Your task to perform on an android device: open app "Spotify" (install if not already installed), go to login, and select forgot password Image 0: 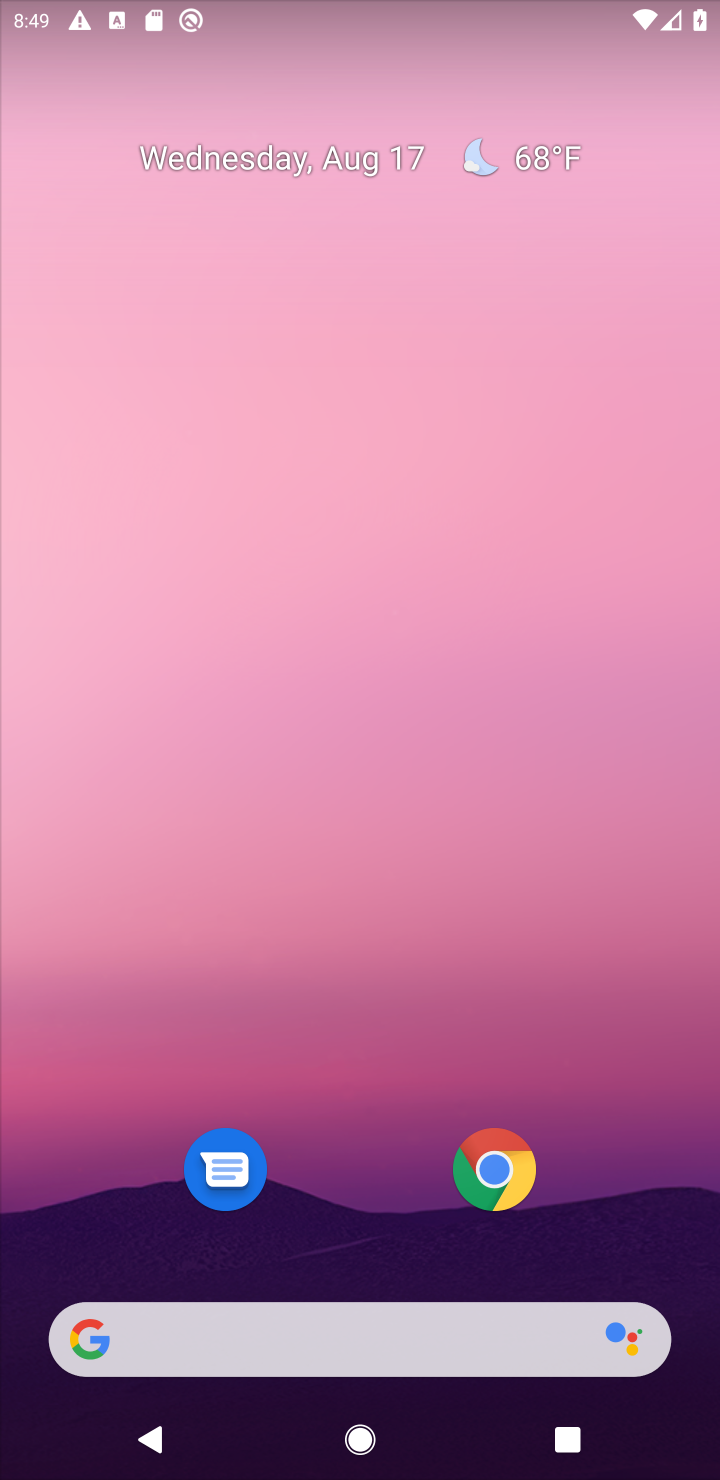
Step 0: drag from (315, 1273) to (312, 33)
Your task to perform on an android device: open app "Spotify" (install if not already installed), go to login, and select forgot password Image 1: 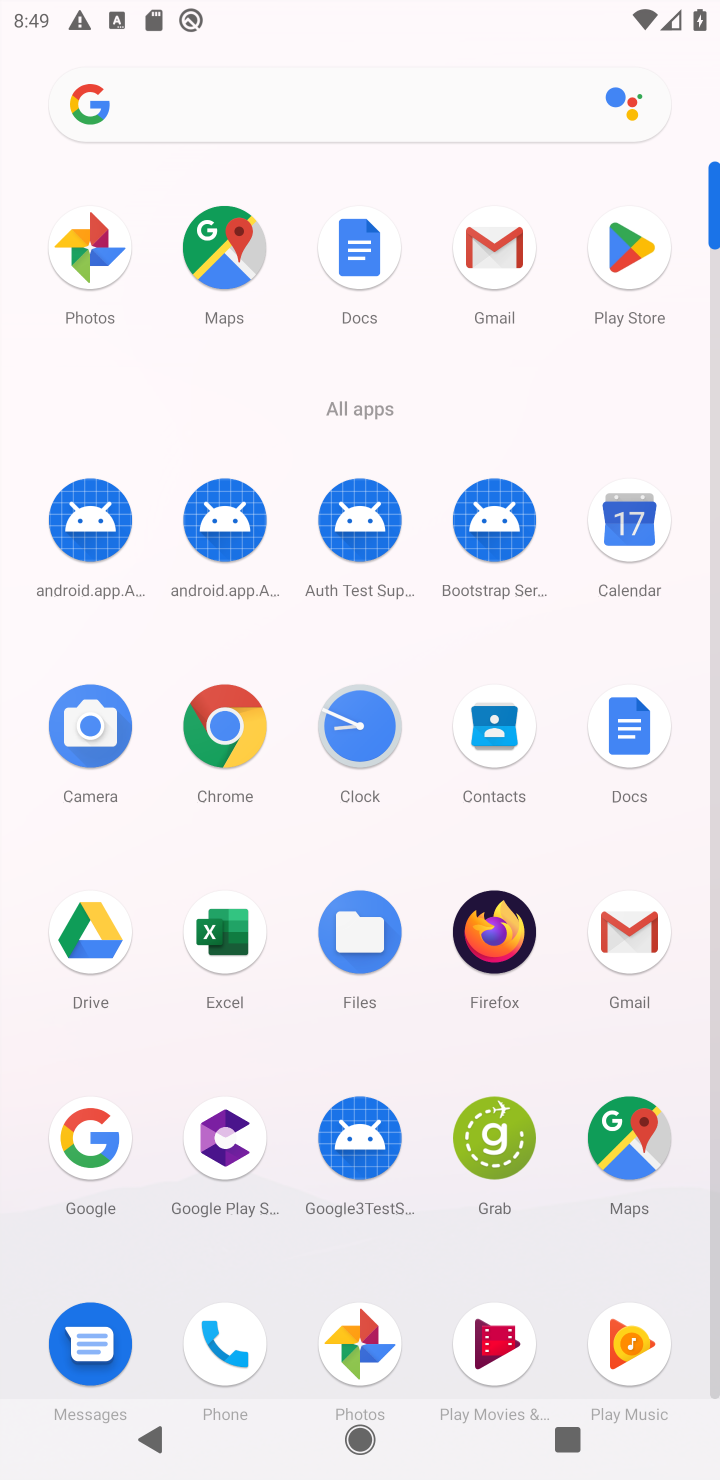
Step 1: click (635, 264)
Your task to perform on an android device: open app "Spotify" (install if not already installed), go to login, and select forgot password Image 2: 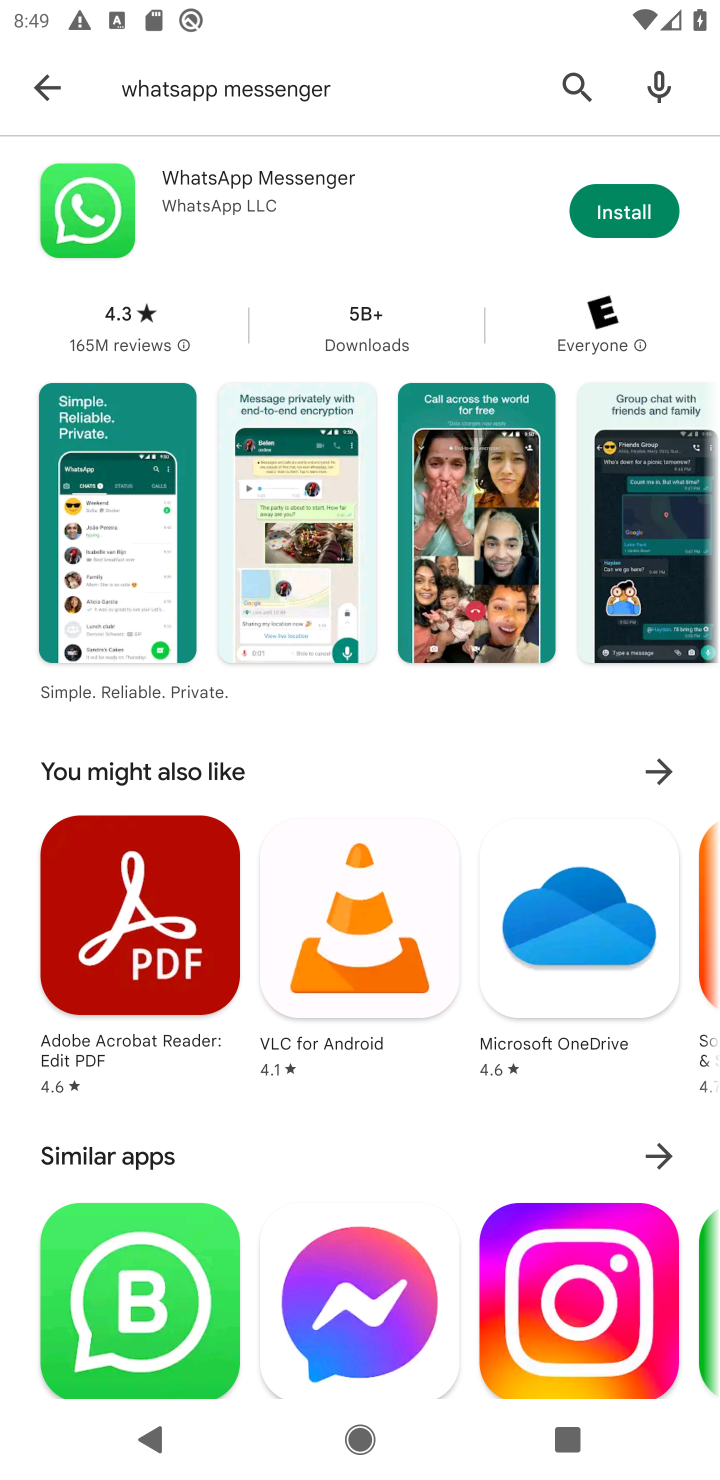
Step 2: click (284, 98)
Your task to perform on an android device: open app "Spotify" (install if not already installed), go to login, and select forgot password Image 3: 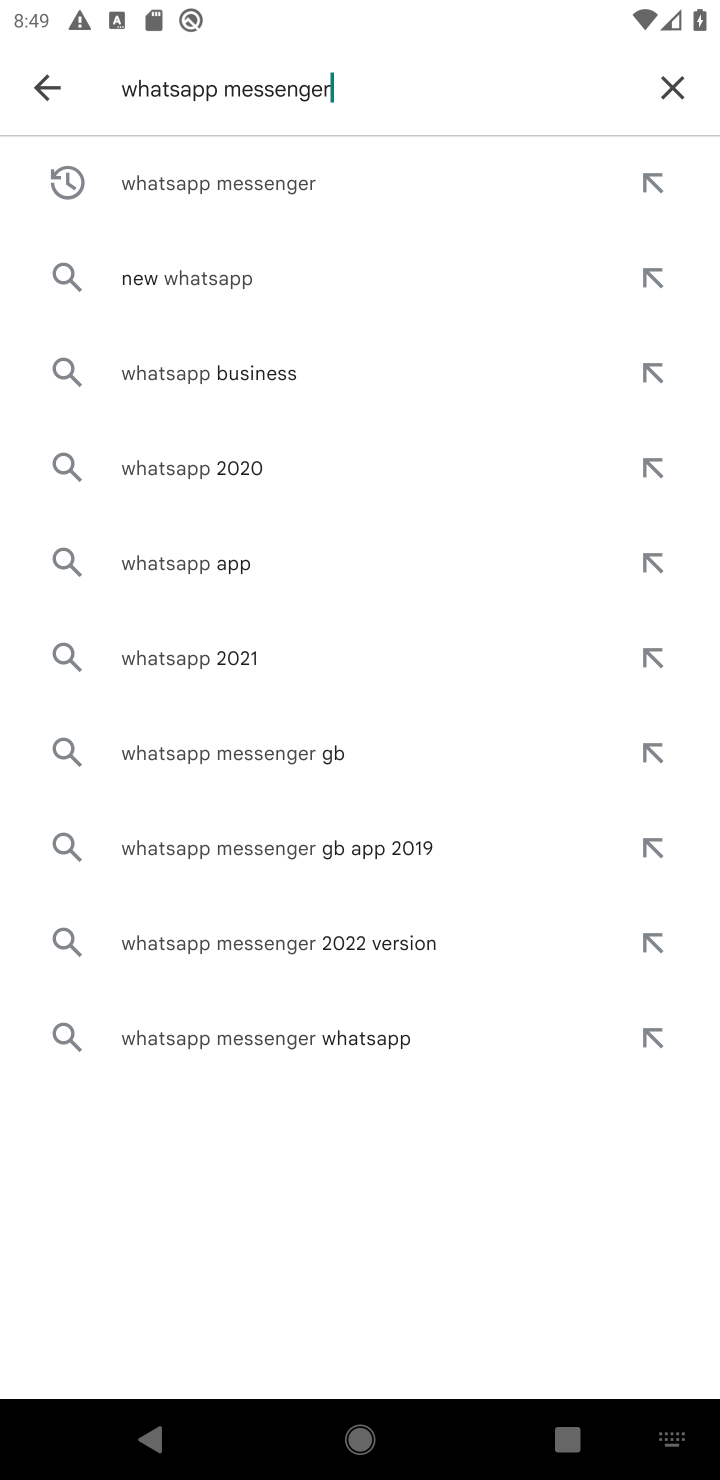
Step 3: click (666, 96)
Your task to perform on an android device: open app "Spotify" (install if not already installed), go to login, and select forgot password Image 4: 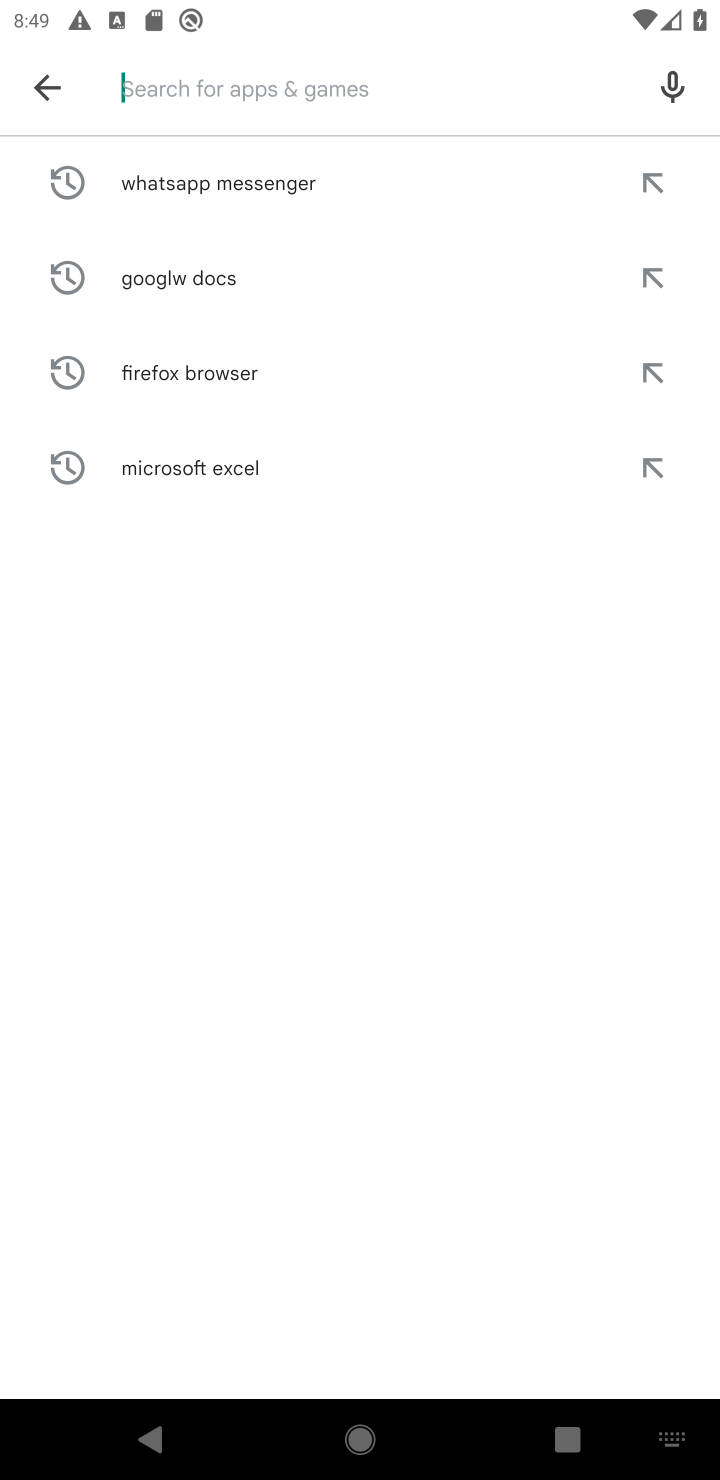
Step 4: type "spotify"
Your task to perform on an android device: open app "Spotify" (install if not already installed), go to login, and select forgot password Image 5: 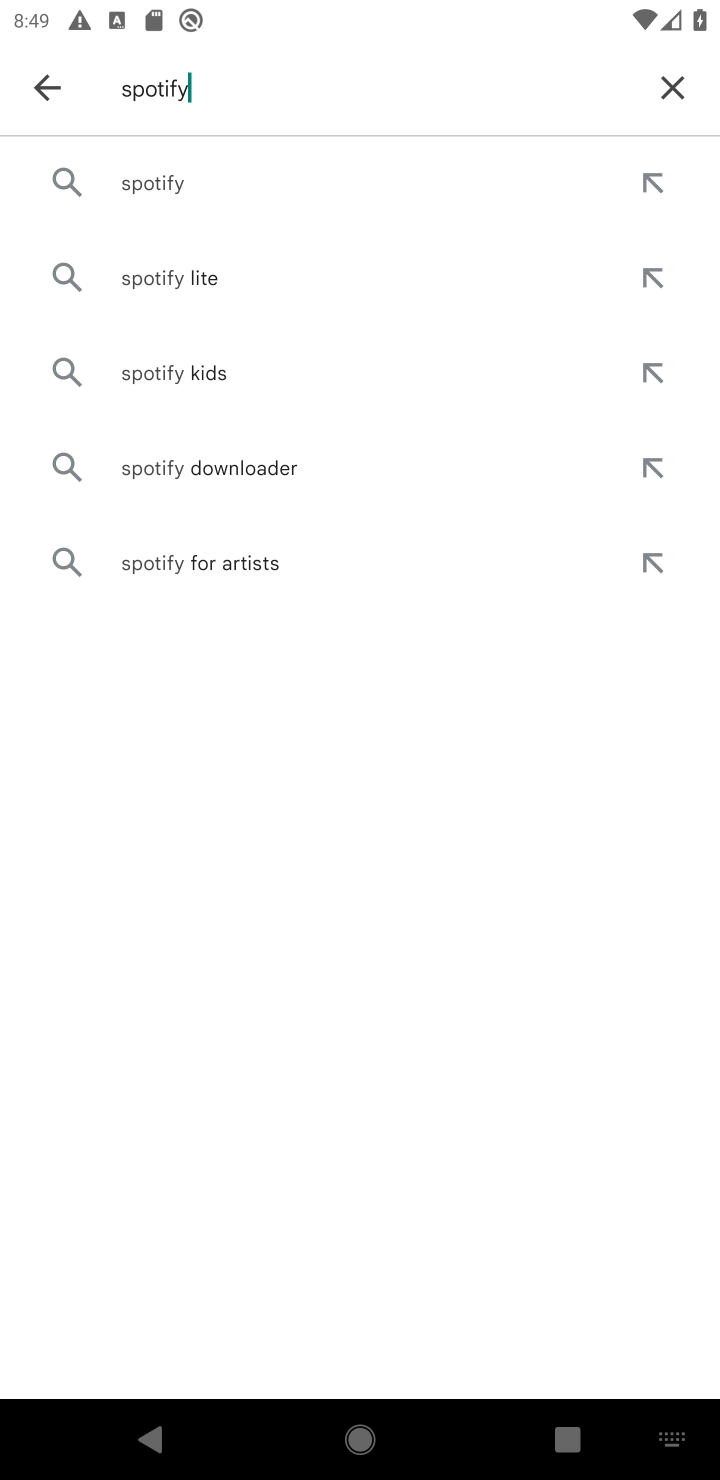
Step 5: click (174, 182)
Your task to perform on an android device: open app "Spotify" (install if not already installed), go to login, and select forgot password Image 6: 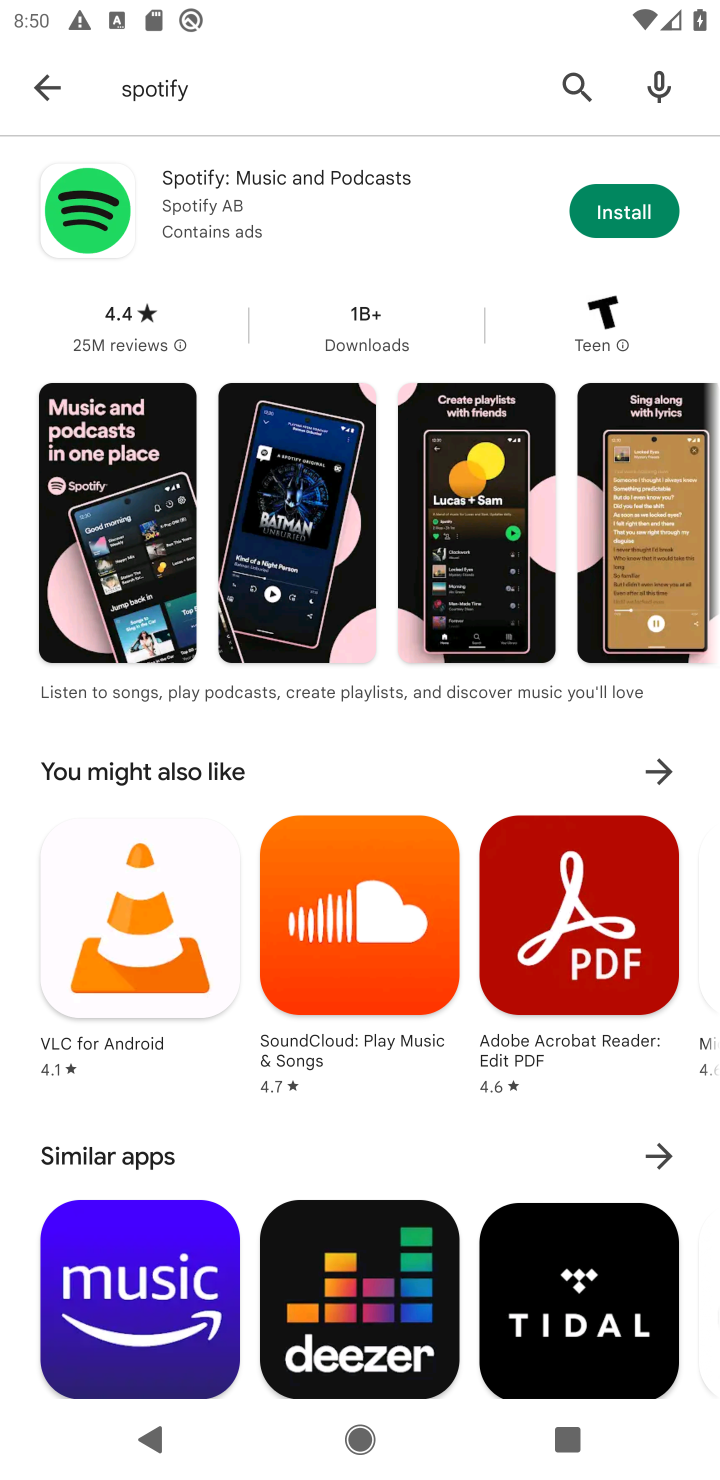
Step 6: click (638, 211)
Your task to perform on an android device: open app "Spotify" (install if not already installed), go to login, and select forgot password Image 7: 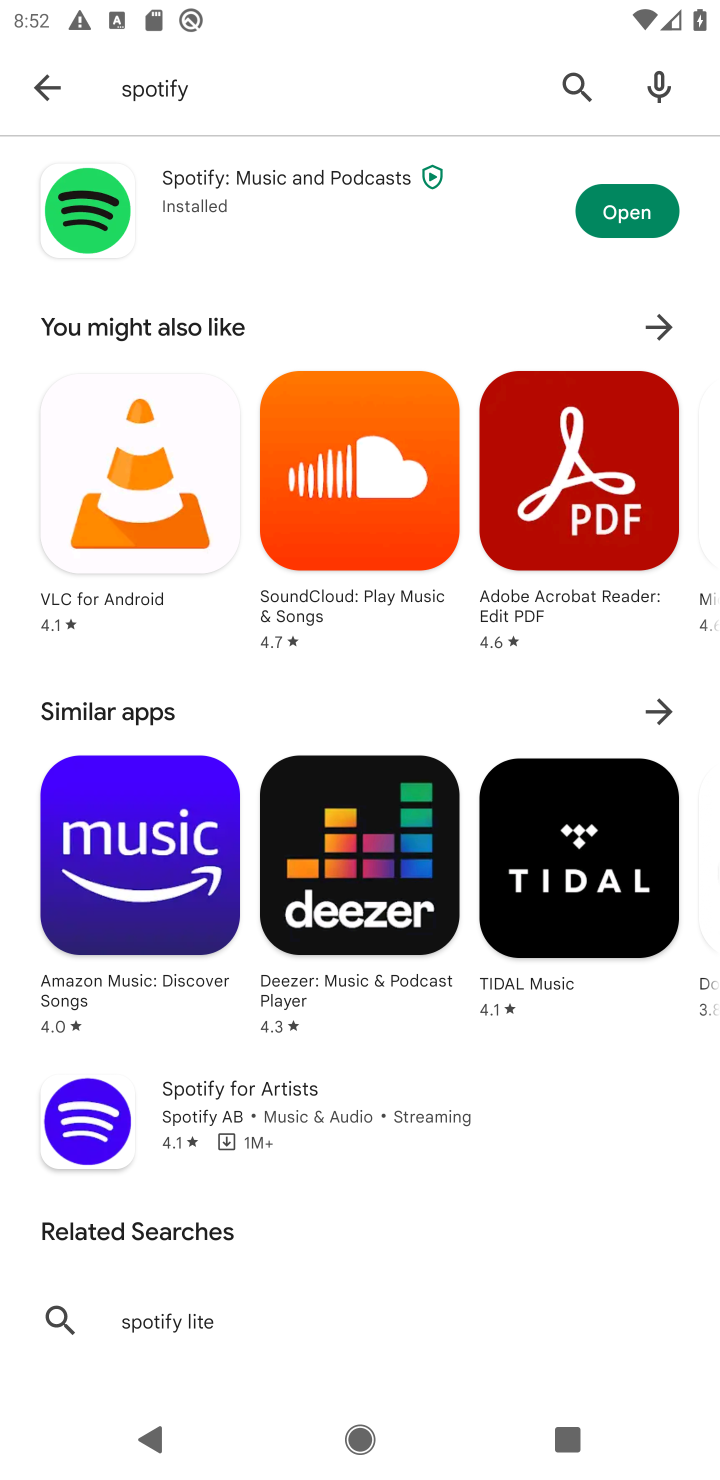
Step 7: click (648, 211)
Your task to perform on an android device: open app "Spotify" (install if not already installed), go to login, and select forgot password Image 8: 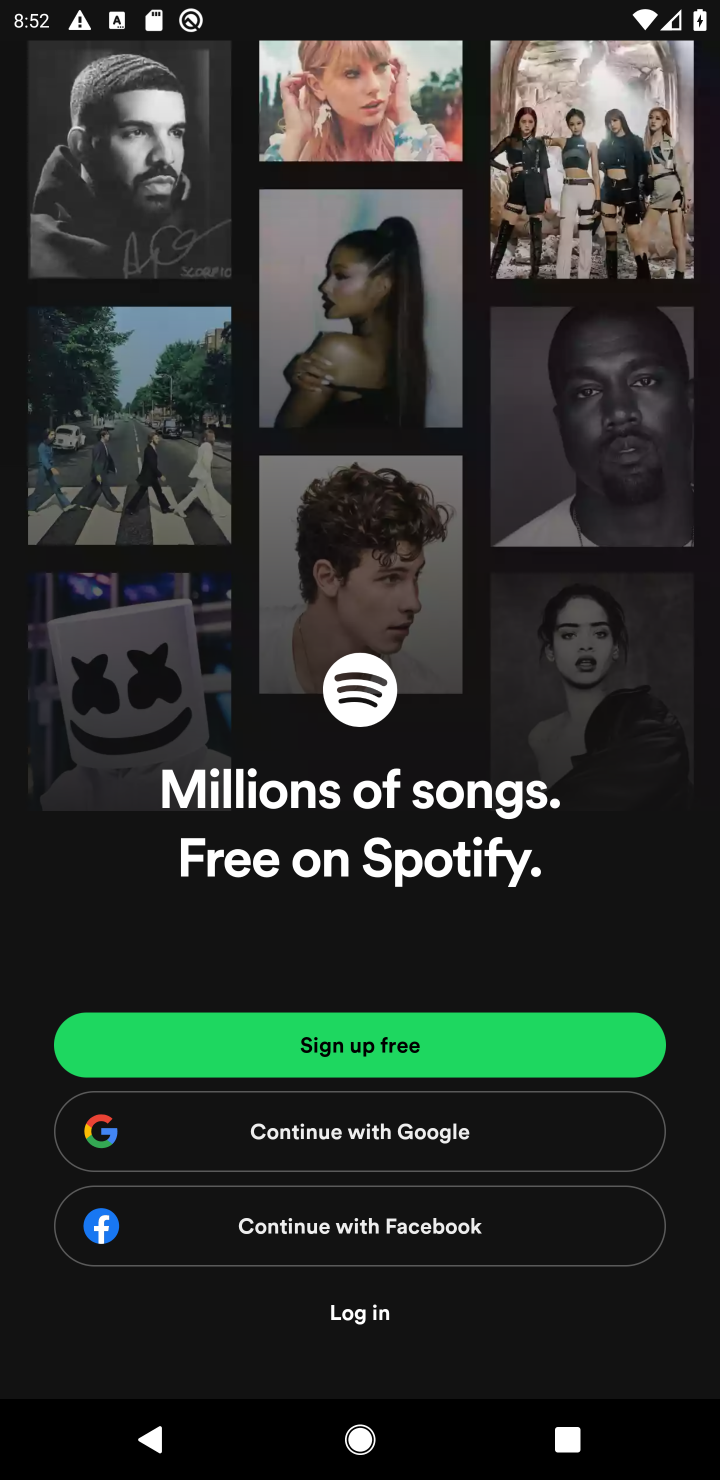
Step 8: click (383, 1038)
Your task to perform on an android device: open app "Spotify" (install if not already installed), go to login, and select forgot password Image 9: 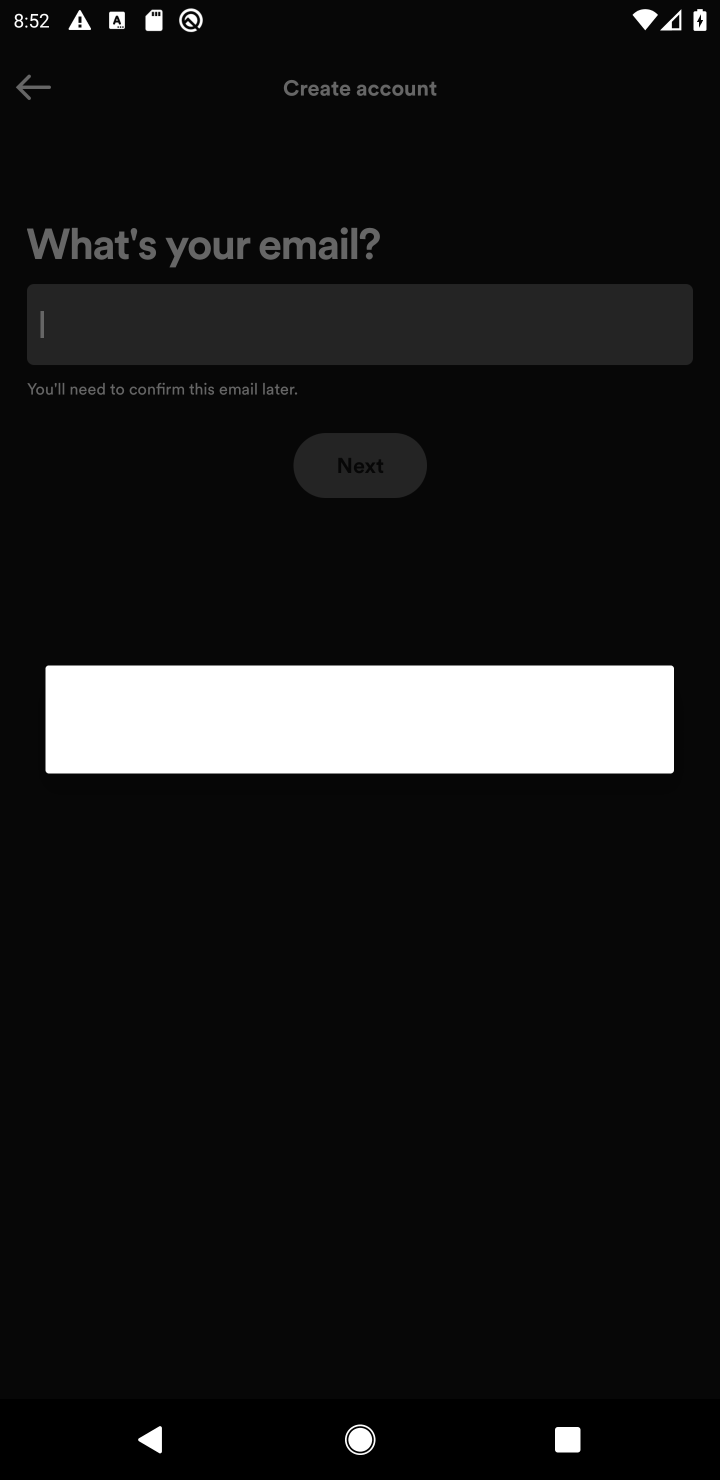
Step 9: click (39, 82)
Your task to perform on an android device: open app "Spotify" (install if not already installed), go to login, and select forgot password Image 10: 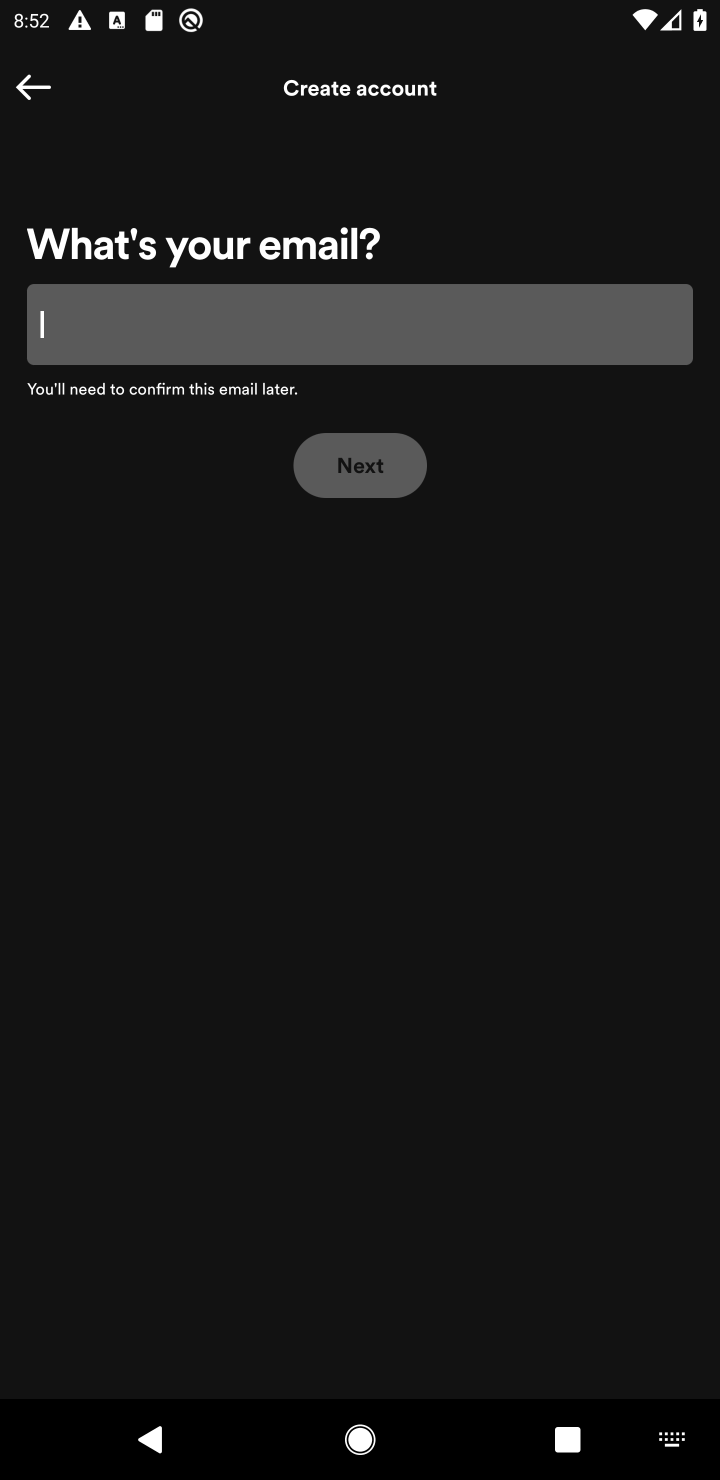
Step 10: click (41, 72)
Your task to perform on an android device: open app "Spotify" (install if not already installed), go to login, and select forgot password Image 11: 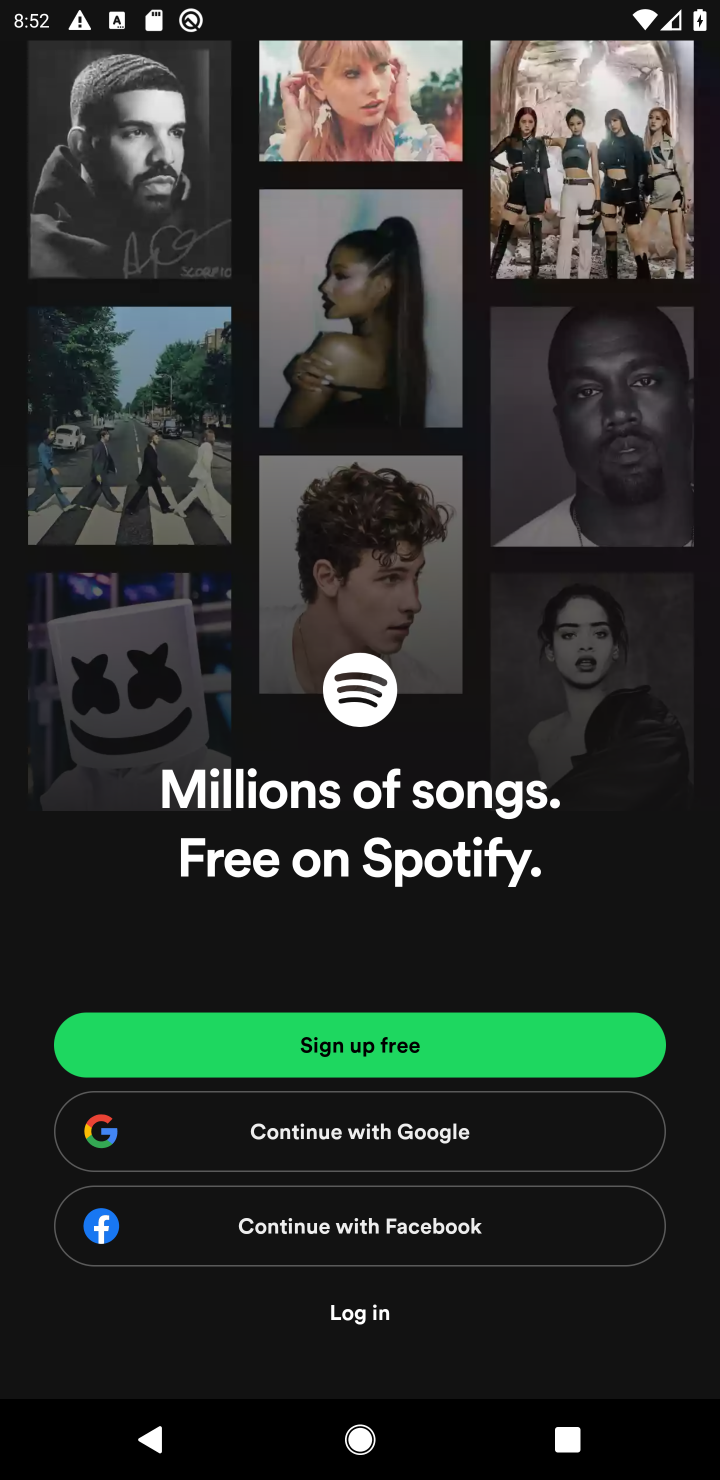
Step 11: click (298, 1321)
Your task to perform on an android device: open app "Spotify" (install if not already installed), go to login, and select forgot password Image 12: 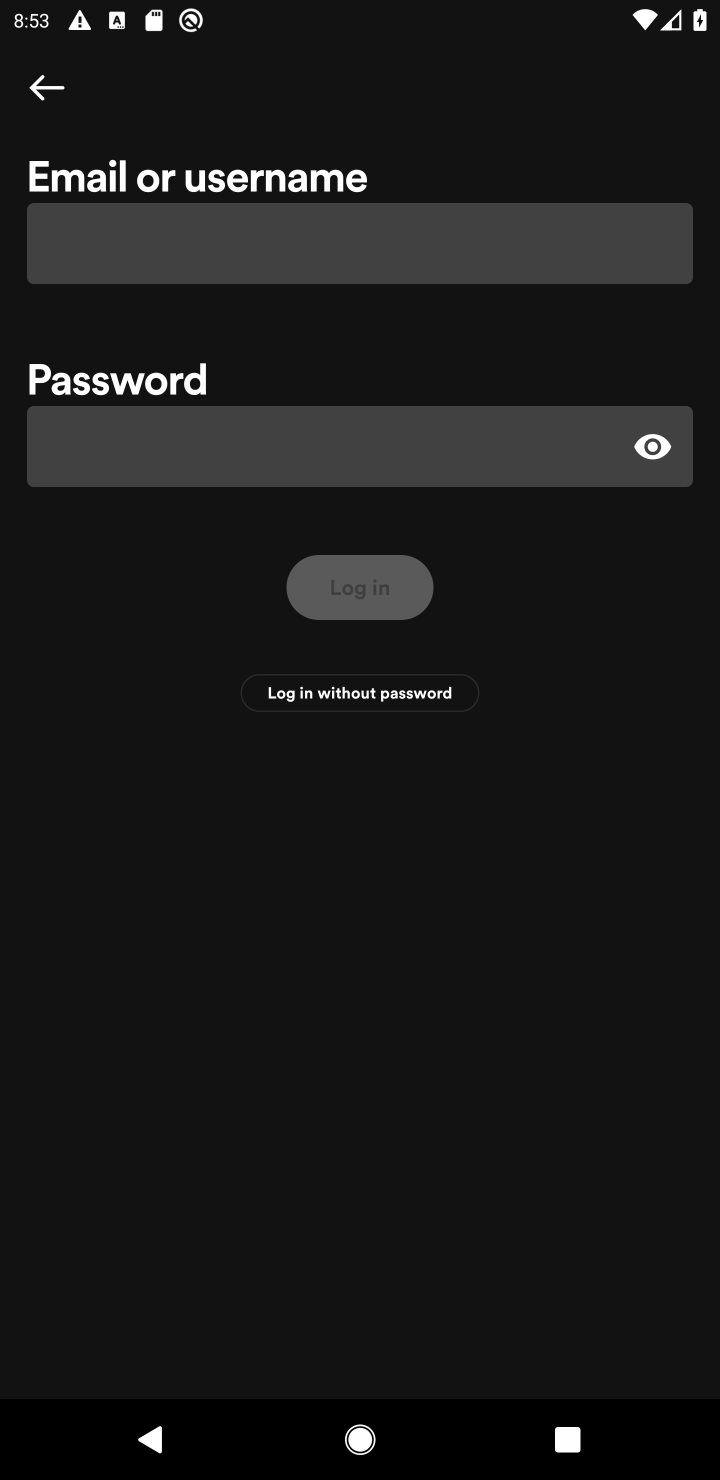
Step 12: task complete